Your task to perform on an android device: What is the news today? Image 0: 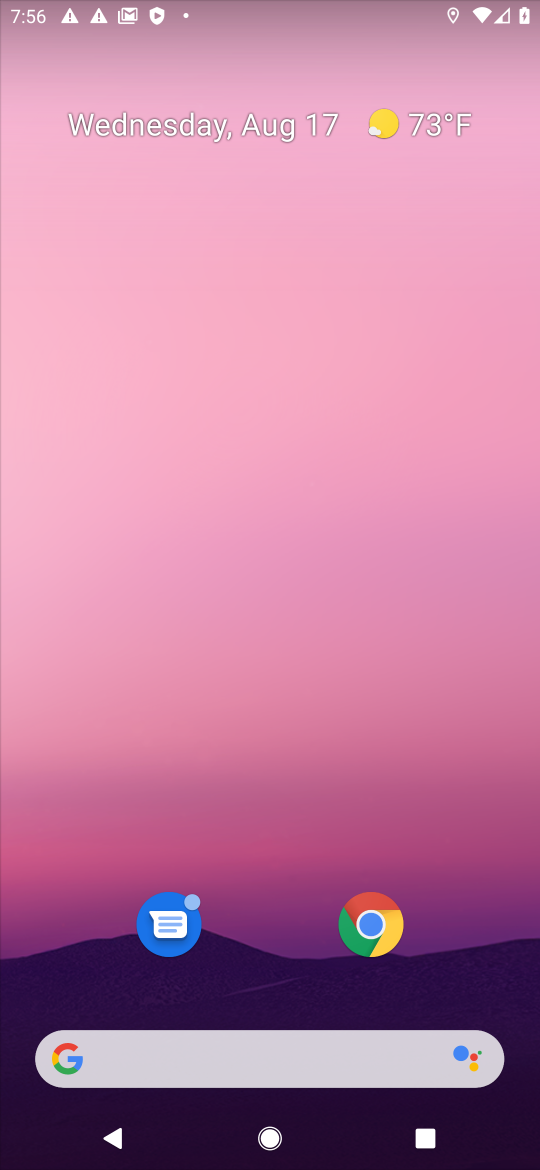
Step 0: drag from (243, 934) to (536, 815)
Your task to perform on an android device: What is the news today? Image 1: 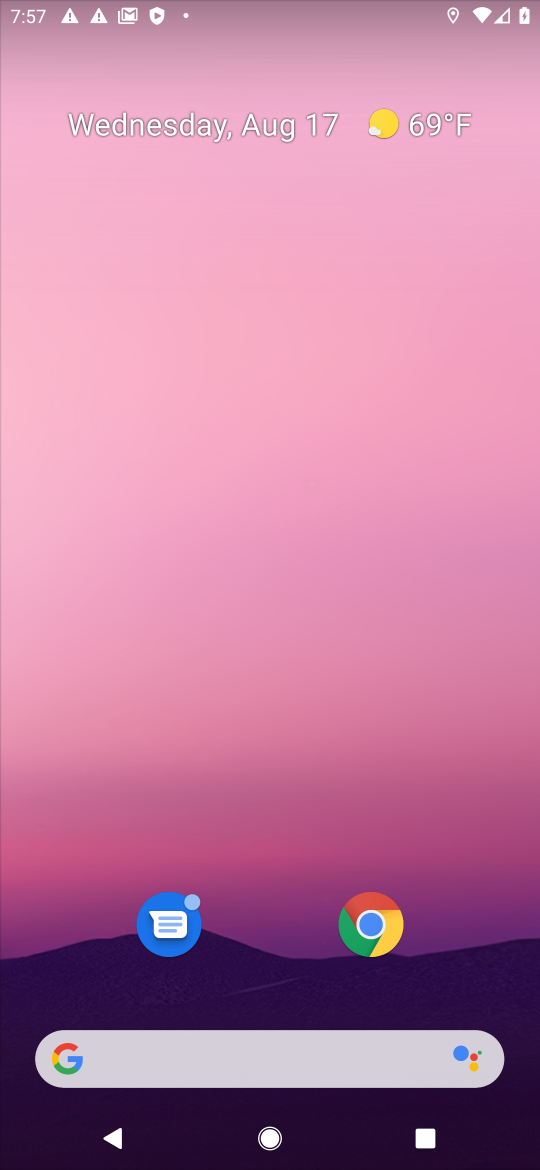
Step 1: drag from (284, 978) to (513, 3)
Your task to perform on an android device: What is the news today? Image 2: 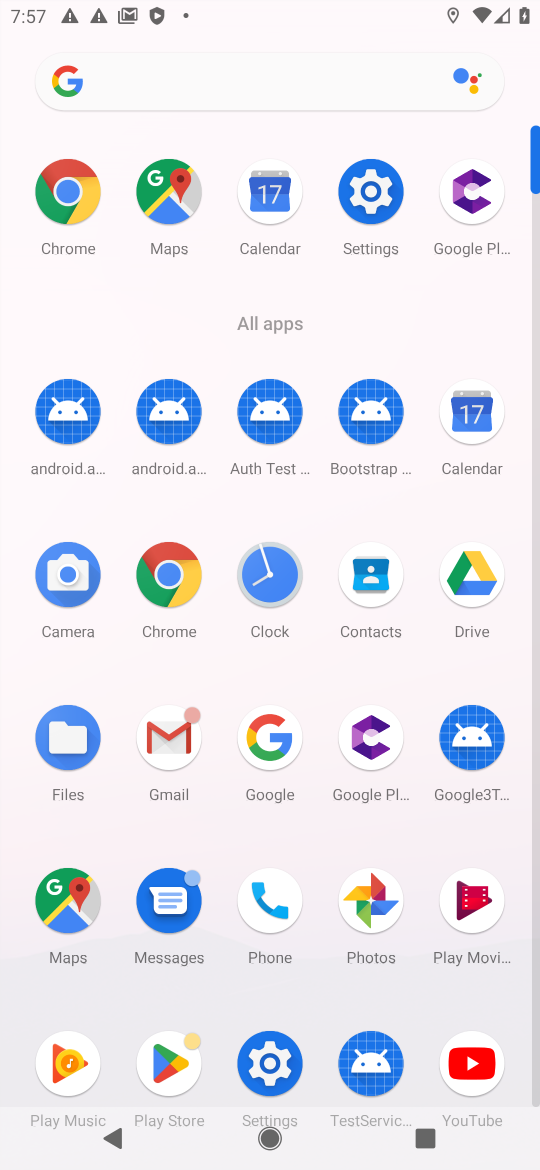
Step 2: click (66, 193)
Your task to perform on an android device: What is the news today? Image 3: 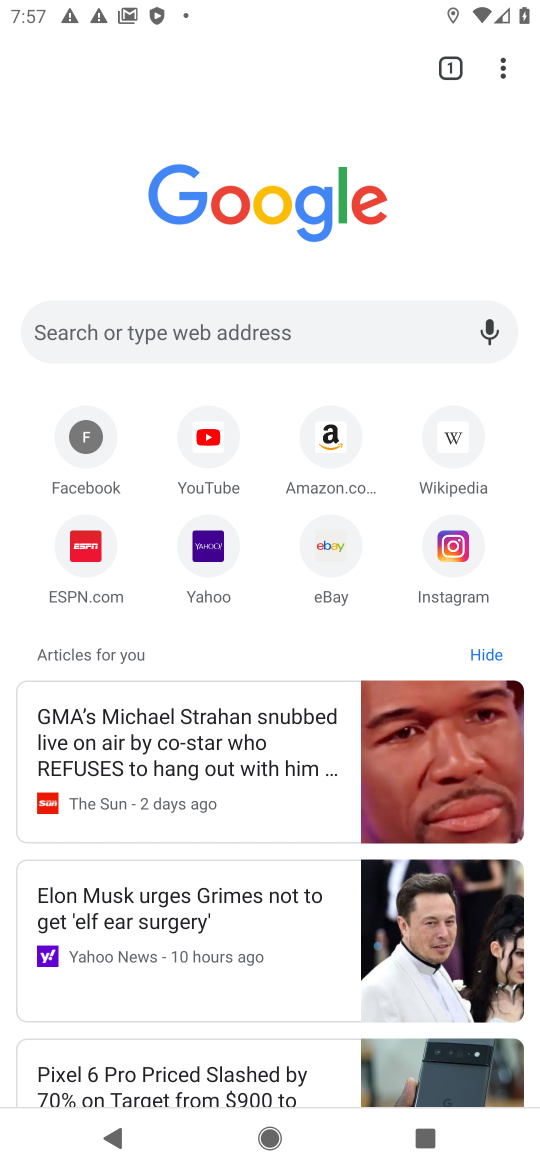
Step 3: click (189, 333)
Your task to perform on an android device: What is the news today? Image 4: 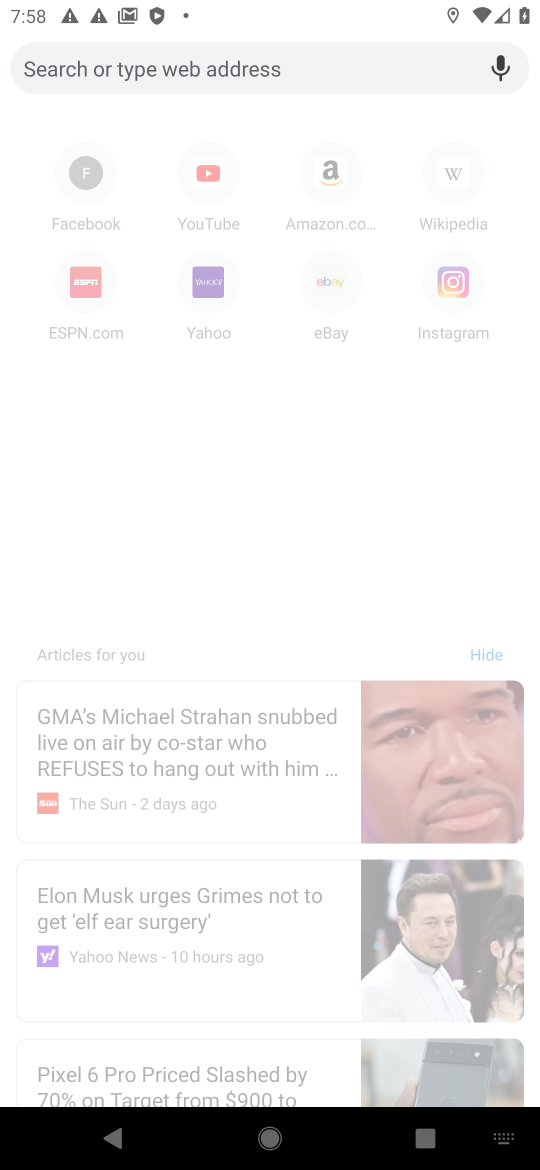
Step 4: type "What is the news today?"
Your task to perform on an android device: What is the news today? Image 5: 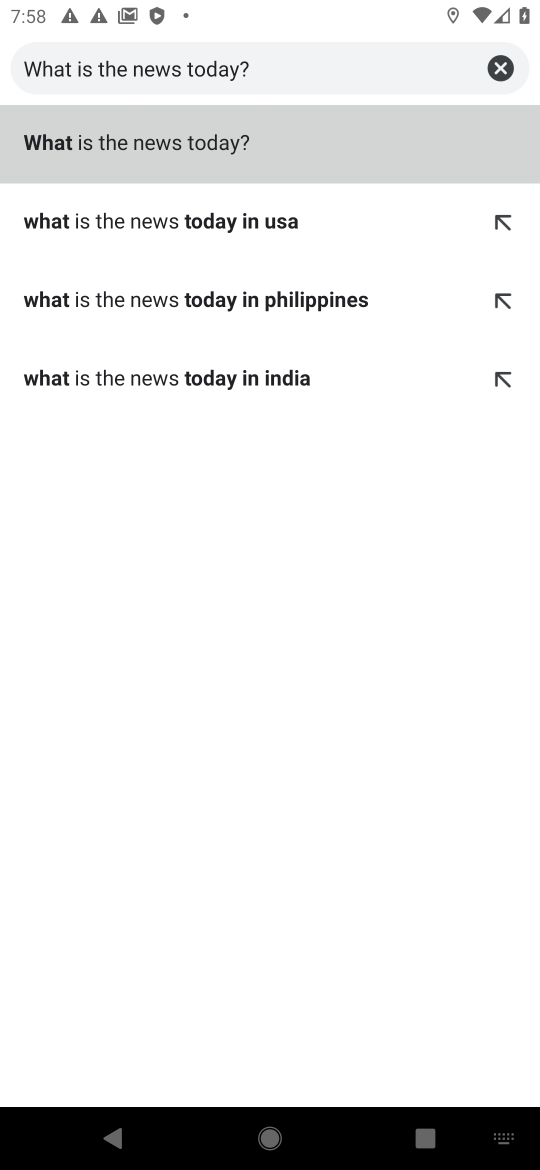
Step 5: click (86, 143)
Your task to perform on an android device: What is the news today? Image 6: 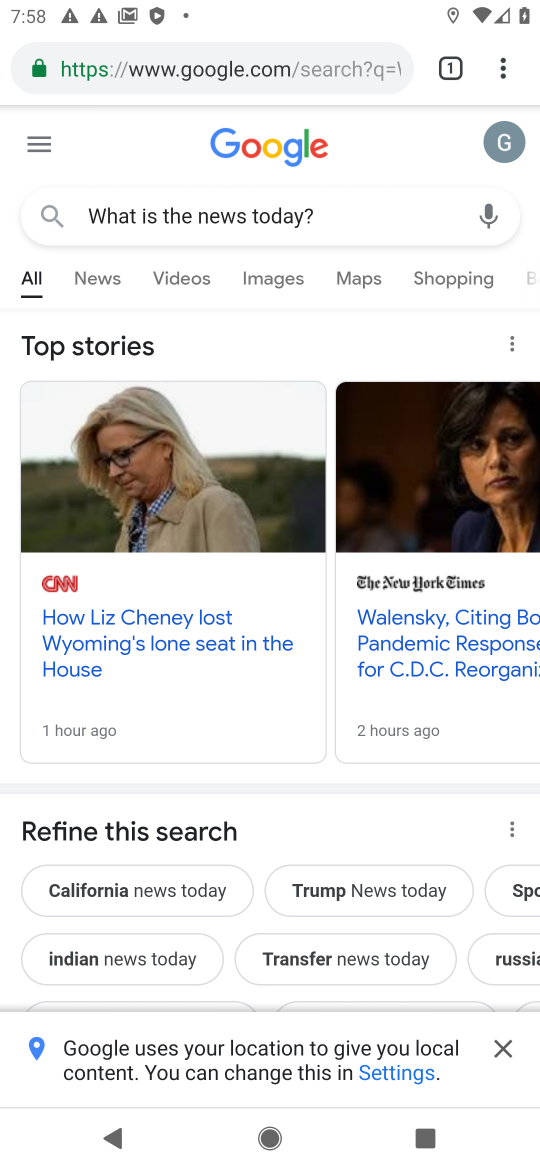
Step 6: click (91, 282)
Your task to perform on an android device: What is the news today? Image 7: 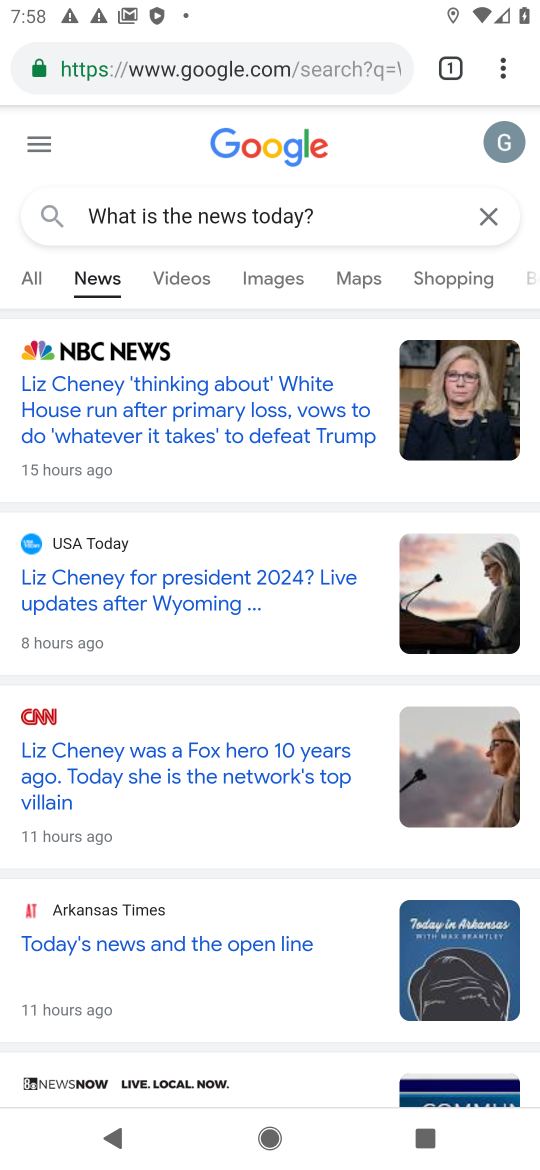
Step 7: task complete